Your task to perform on an android device: Go to battery settings Image 0: 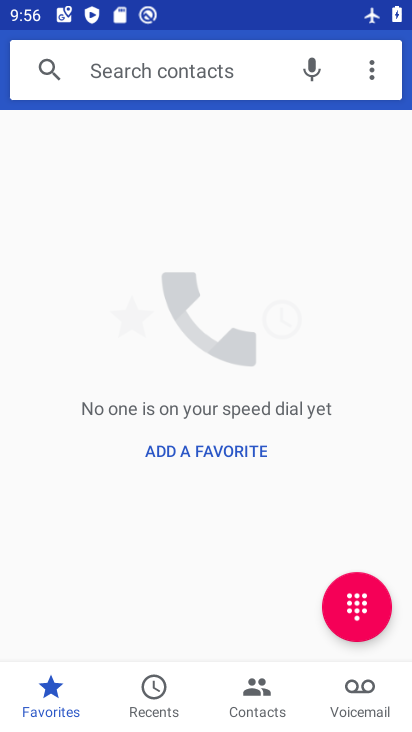
Step 0: press home button
Your task to perform on an android device: Go to battery settings Image 1: 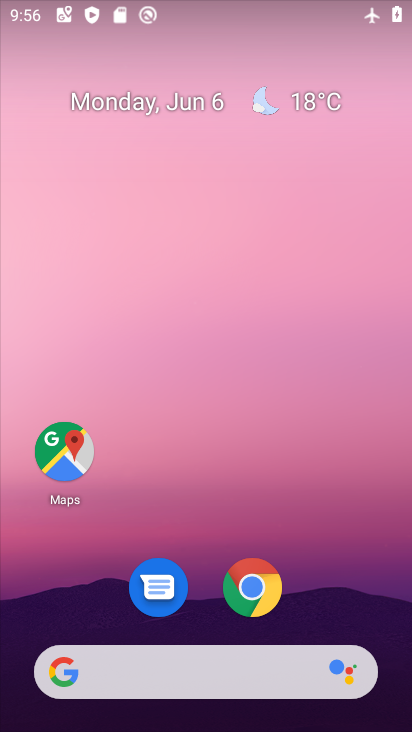
Step 1: drag from (304, 573) to (302, 136)
Your task to perform on an android device: Go to battery settings Image 2: 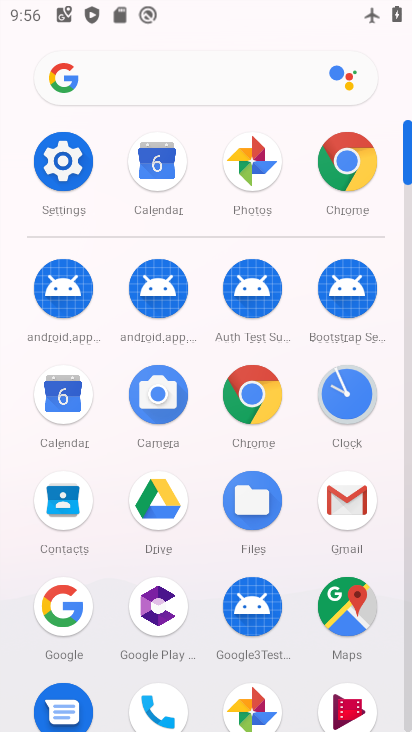
Step 2: click (62, 180)
Your task to perform on an android device: Go to battery settings Image 3: 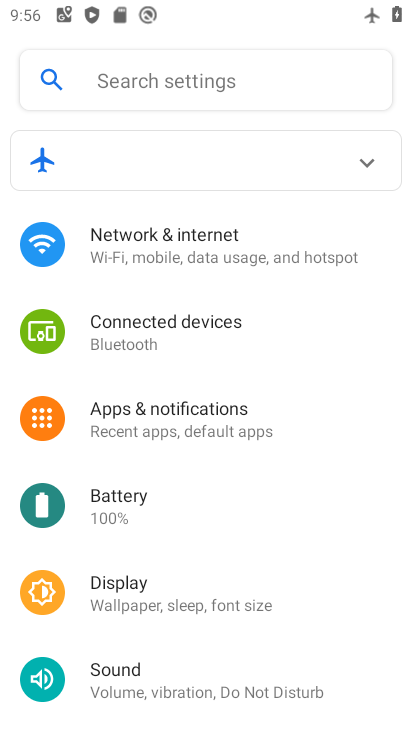
Step 3: click (130, 509)
Your task to perform on an android device: Go to battery settings Image 4: 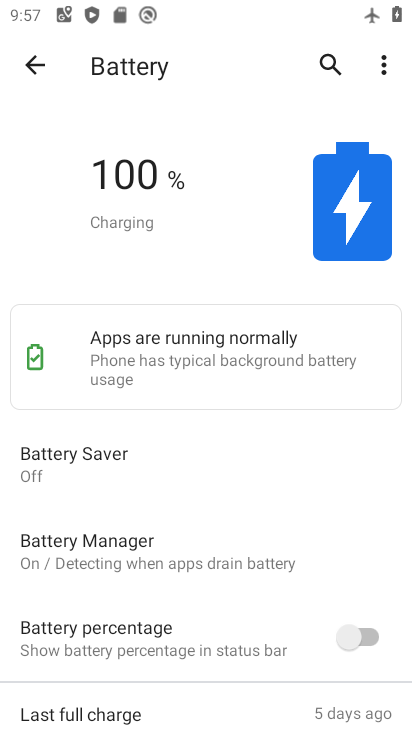
Step 4: task complete